Your task to perform on an android device: check battery use Image 0: 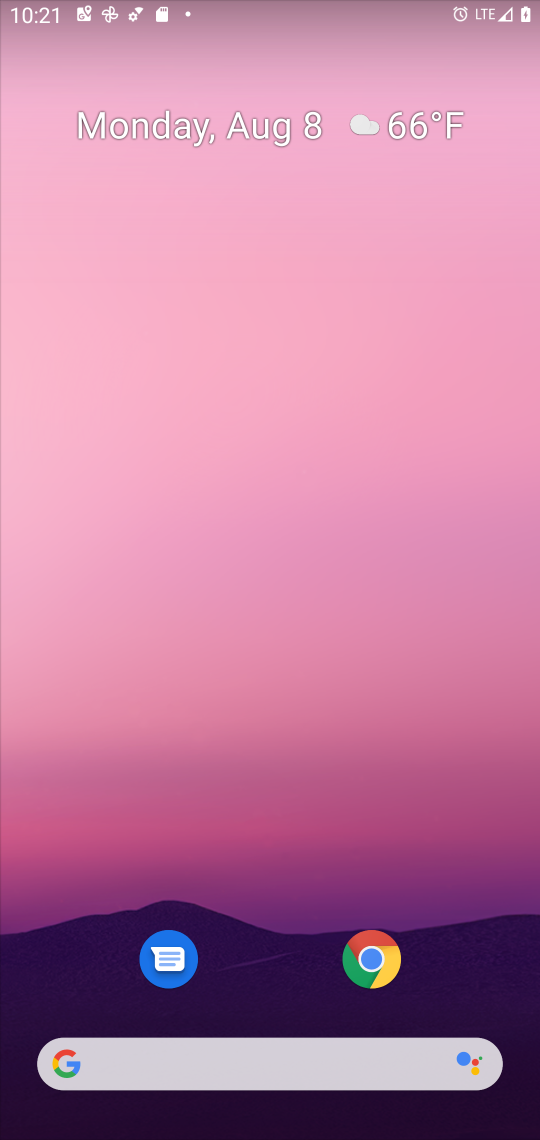
Step 0: press home button
Your task to perform on an android device: check battery use Image 1: 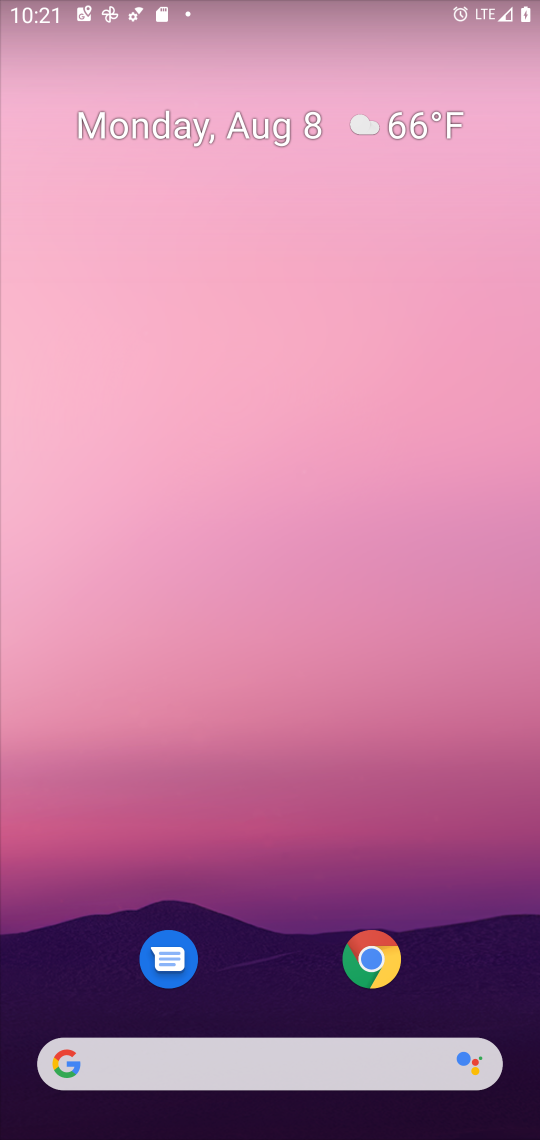
Step 1: drag from (466, 985) to (191, 16)
Your task to perform on an android device: check battery use Image 2: 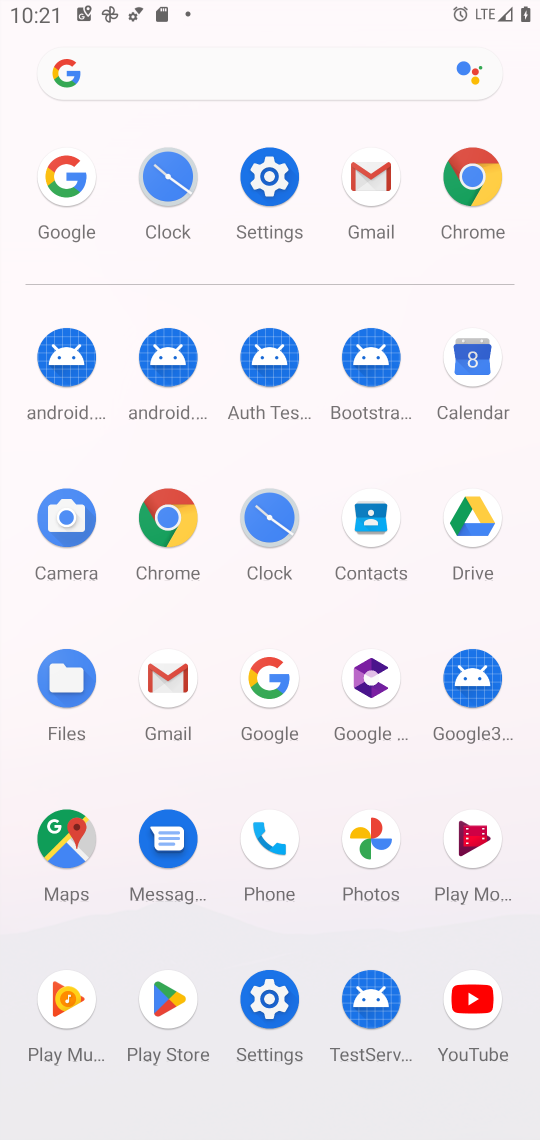
Step 2: click (266, 987)
Your task to perform on an android device: check battery use Image 3: 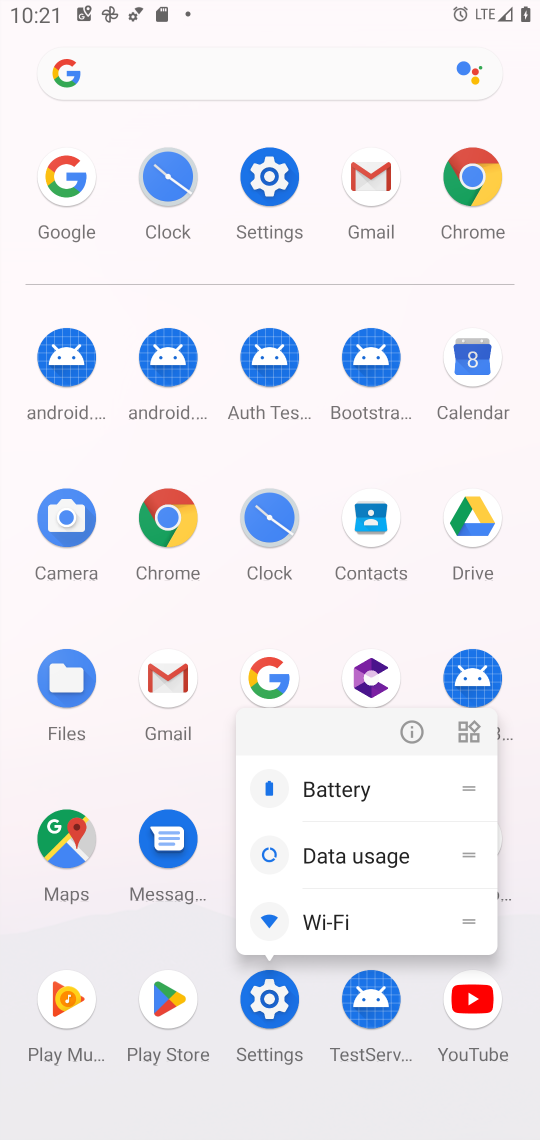
Step 3: click (264, 1001)
Your task to perform on an android device: check battery use Image 4: 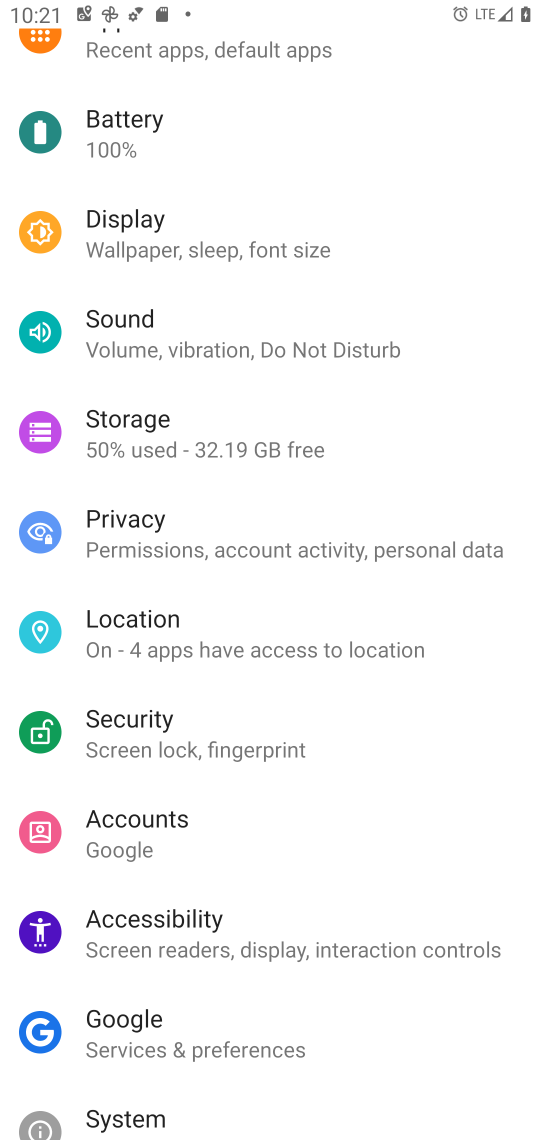
Step 4: click (109, 128)
Your task to perform on an android device: check battery use Image 5: 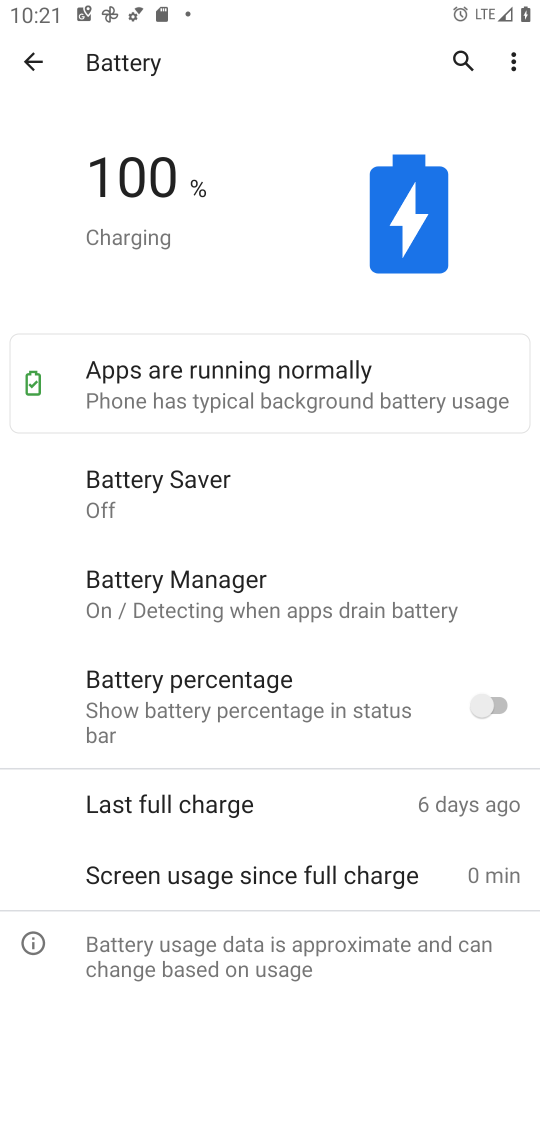
Step 5: click (513, 62)
Your task to perform on an android device: check battery use Image 6: 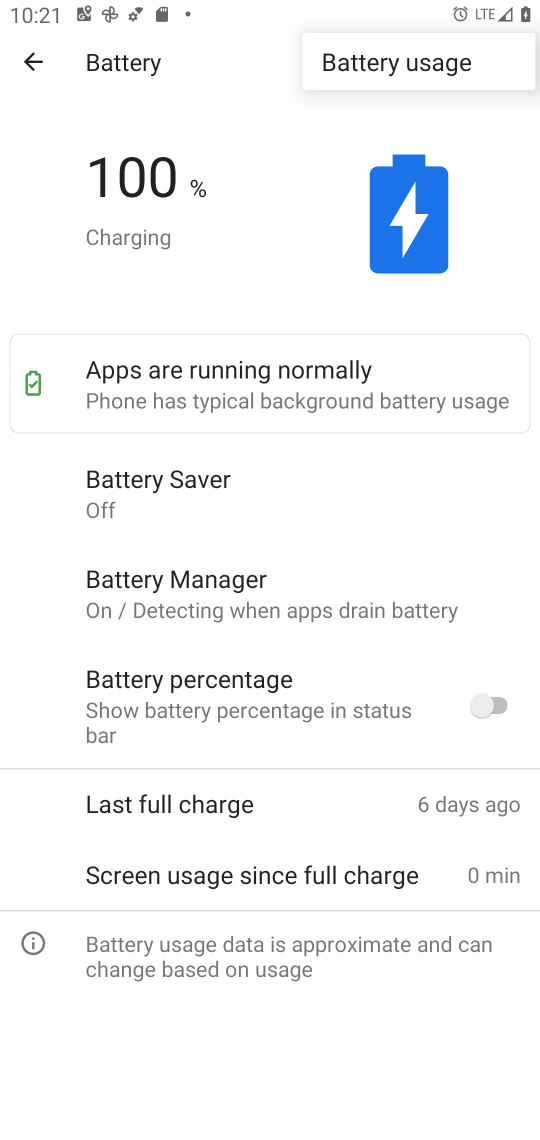
Step 6: click (382, 59)
Your task to perform on an android device: check battery use Image 7: 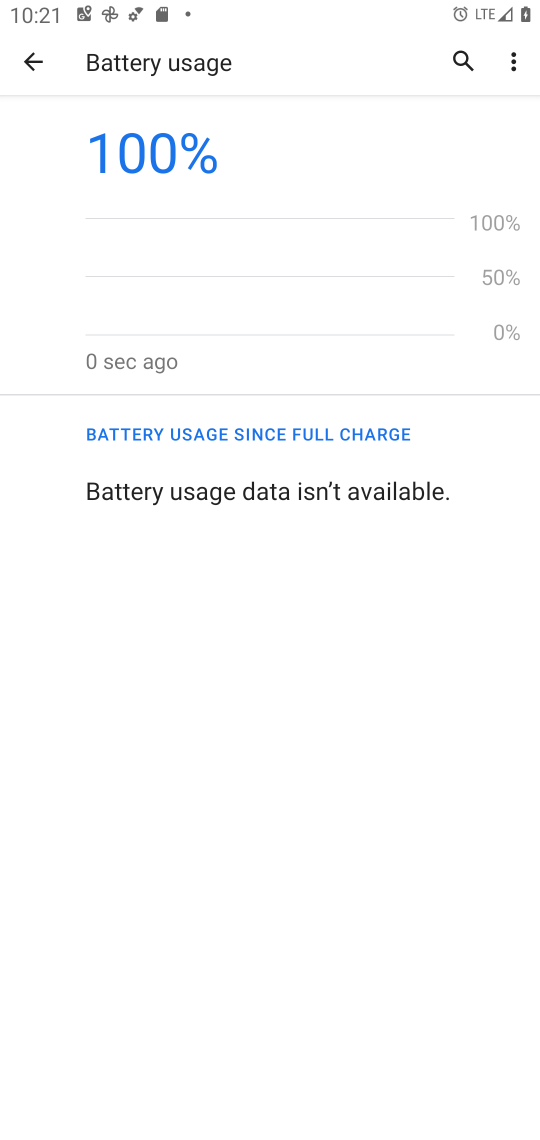
Step 7: task complete